Your task to perform on an android device: open app "McDonald's" (install if not already installed) and enter user name: "copes@yahoo.com" and password: "Rhenish" Image 0: 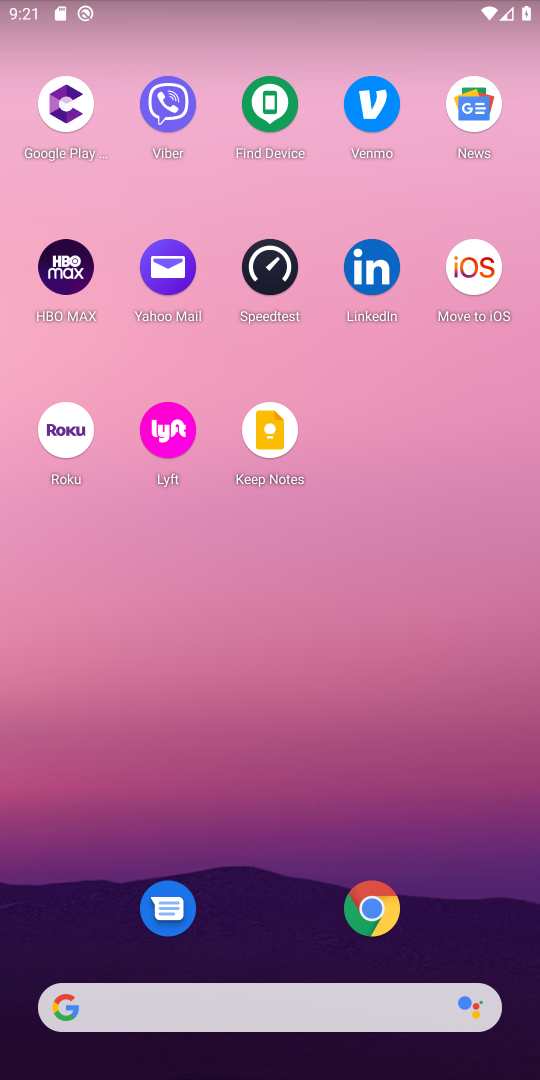
Step 0: drag from (275, 913) to (333, 5)
Your task to perform on an android device: open app "McDonald's" (install if not already installed) and enter user name: "copes@yahoo.com" and password: "Rhenish" Image 1: 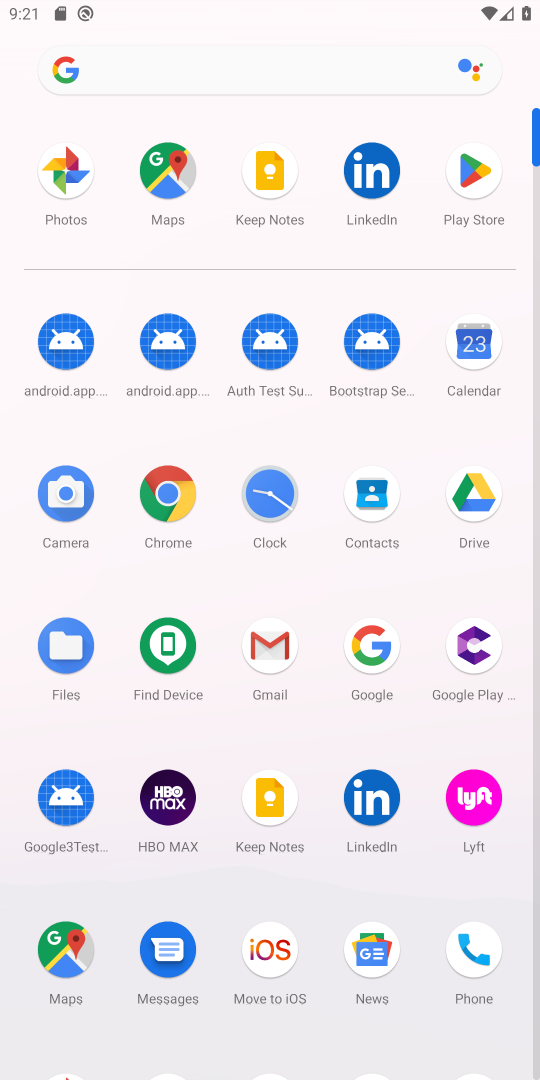
Step 1: click (474, 220)
Your task to perform on an android device: open app "McDonald's" (install if not already installed) and enter user name: "copes@yahoo.com" and password: "Rhenish" Image 2: 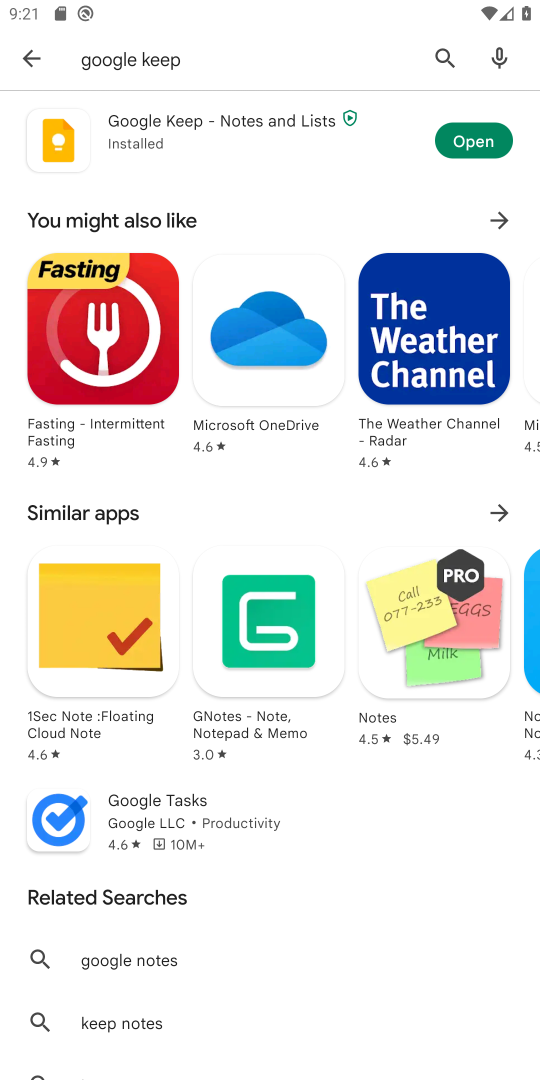
Step 2: click (213, 48)
Your task to perform on an android device: open app "McDonald's" (install if not already installed) and enter user name: "copes@yahoo.com" and password: "Rhenish" Image 3: 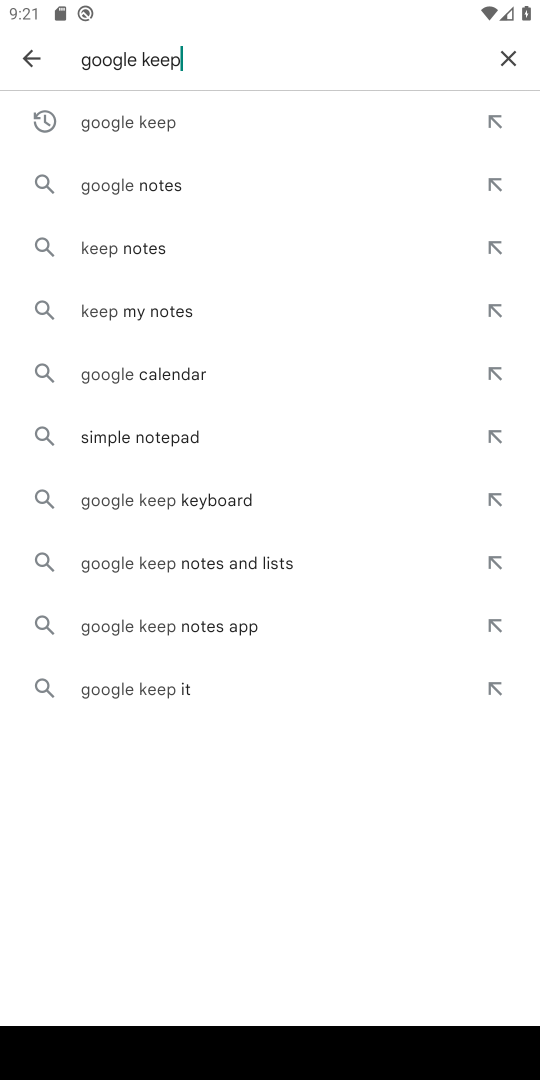
Step 3: click (511, 57)
Your task to perform on an android device: open app "McDonald's" (install if not already installed) and enter user name: "copes@yahoo.com" and password: "Rhenish" Image 4: 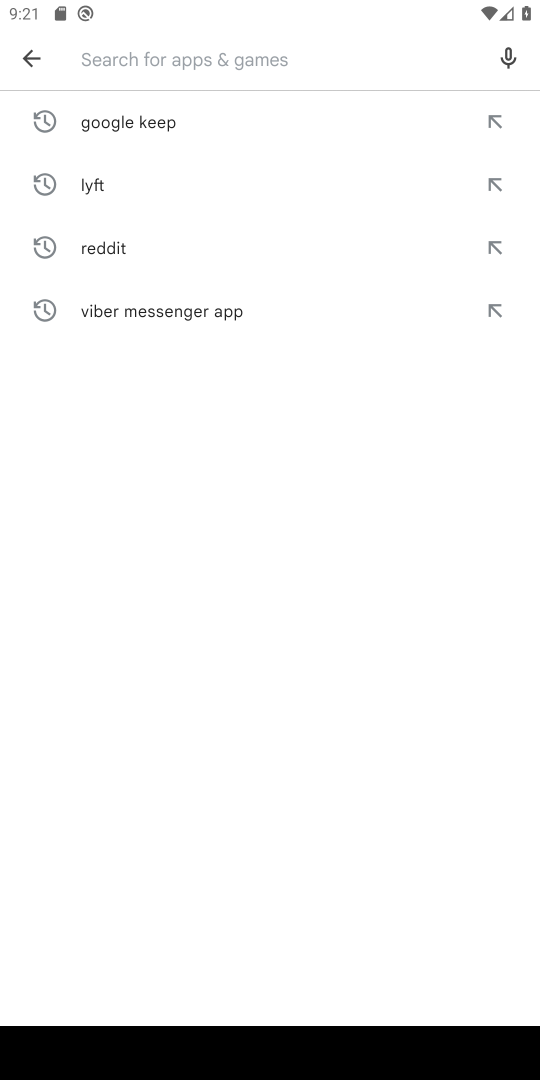
Step 4: type "McDonalds"
Your task to perform on an android device: open app "McDonald's" (install if not already installed) and enter user name: "copes@yahoo.com" and password: "Rhenish" Image 5: 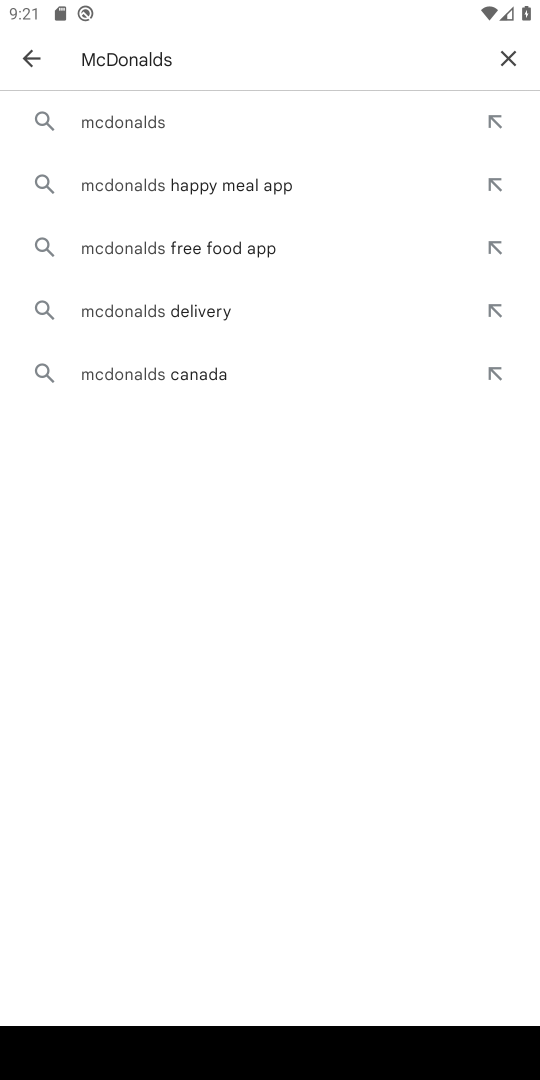
Step 5: click (185, 127)
Your task to perform on an android device: open app "McDonald's" (install if not already installed) and enter user name: "copes@yahoo.com" and password: "Rhenish" Image 6: 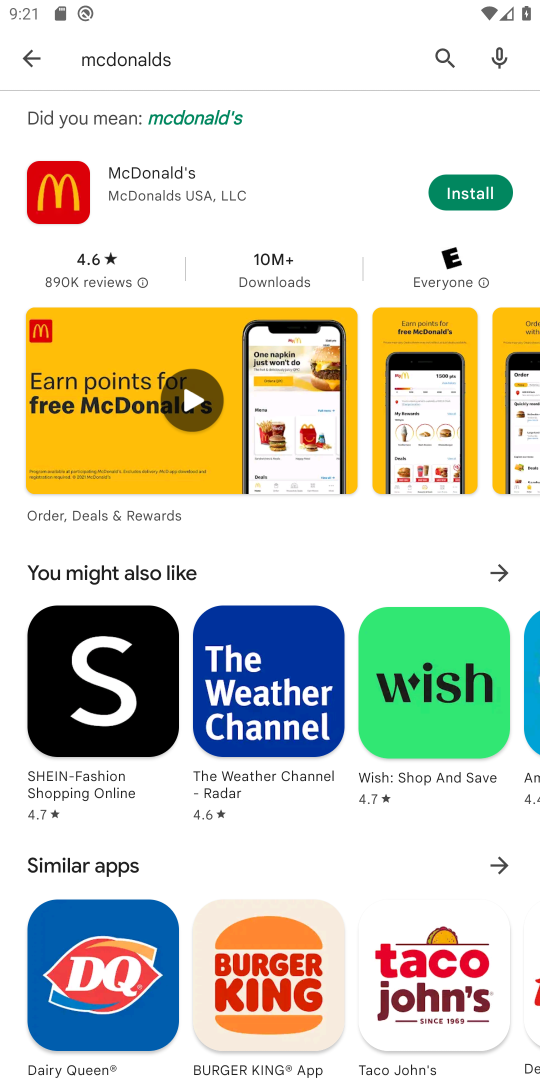
Step 6: click (489, 196)
Your task to perform on an android device: open app "McDonald's" (install if not already installed) and enter user name: "copes@yahoo.com" and password: "Rhenish" Image 7: 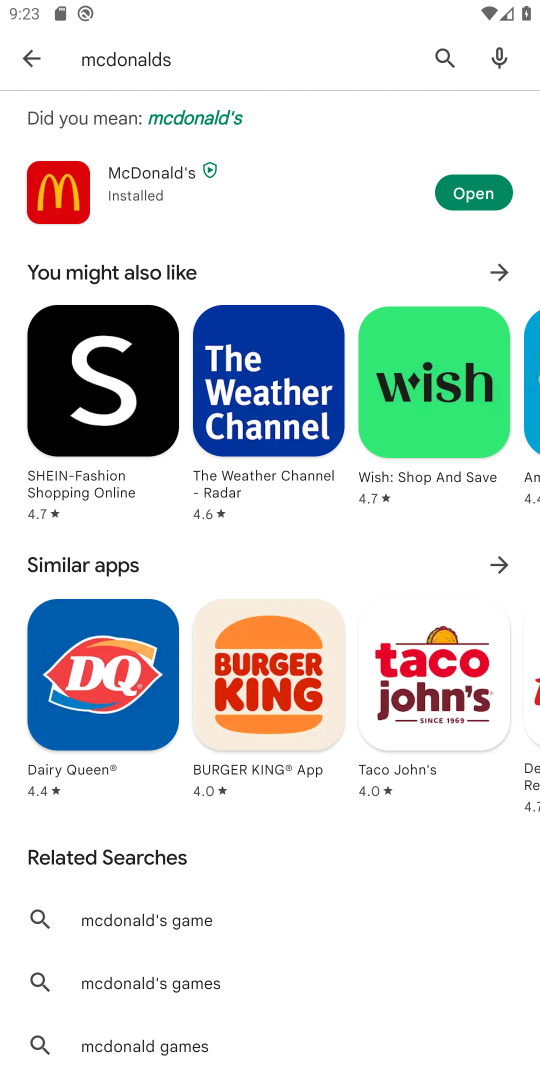
Step 7: click (472, 195)
Your task to perform on an android device: open app "McDonald's" (install if not already installed) and enter user name: "copes@yahoo.com" and password: "Rhenish" Image 8: 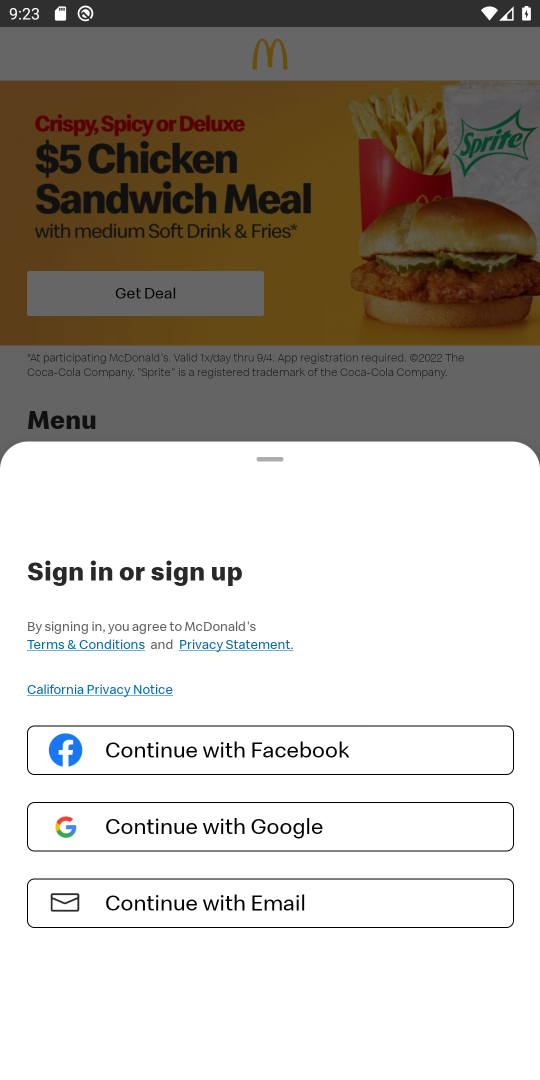
Step 8: click (274, 897)
Your task to perform on an android device: open app "McDonald's" (install if not already installed) and enter user name: "copes@yahoo.com" and password: "Rhenish" Image 9: 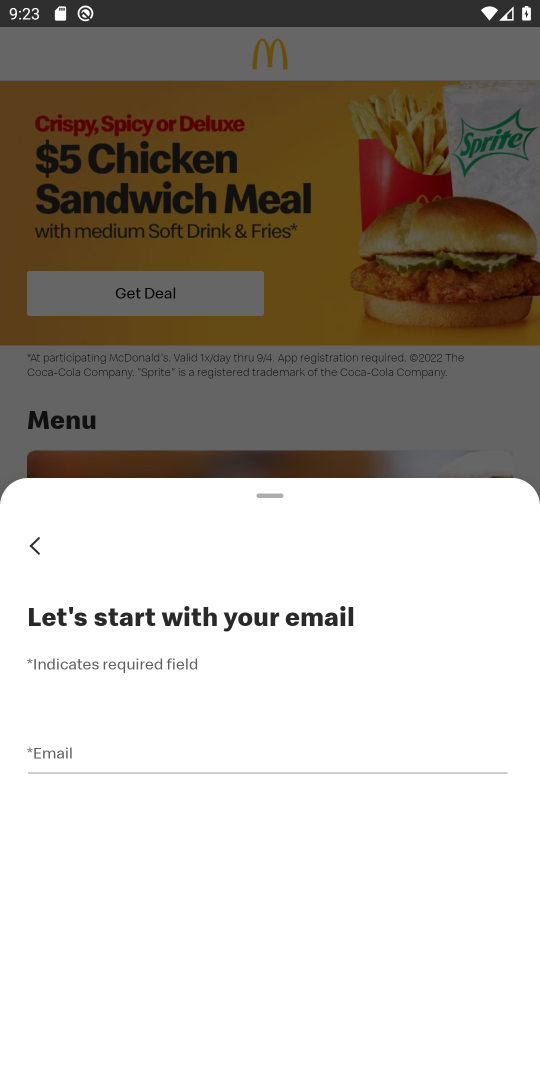
Step 9: click (169, 741)
Your task to perform on an android device: open app "McDonald's" (install if not already installed) and enter user name: "copes@yahoo.com" and password: "Rhenish" Image 10: 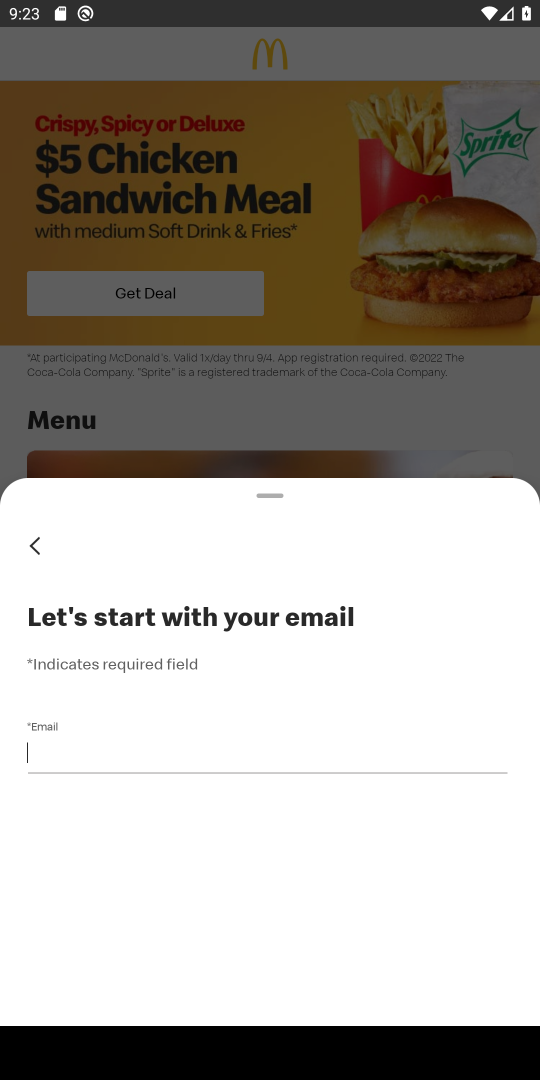
Step 10: type "copes@yahoo.com"
Your task to perform on an android device: open app "McDonald's" (install if not already installed) and enter user name: "copes@yahoo.com" and password: "Rhenish" Image 11: 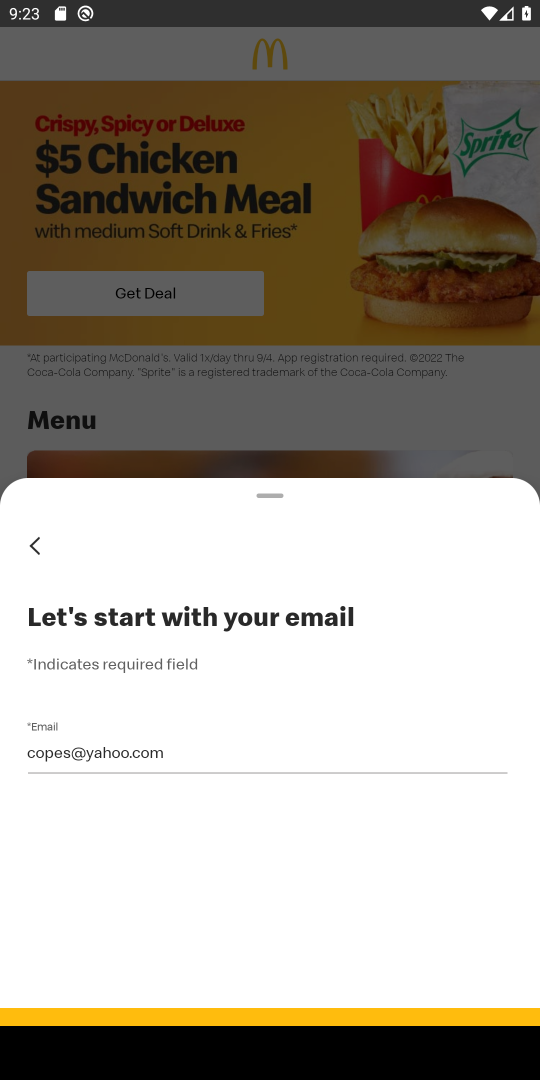
Step 11: drag from (193, 853) to (231, 614)
Your task to perform on an android device: open app "McDonald's" (install if not already installed) and enter user name: "copes@yahoo.com" and password: "Rhenish" Image 12: 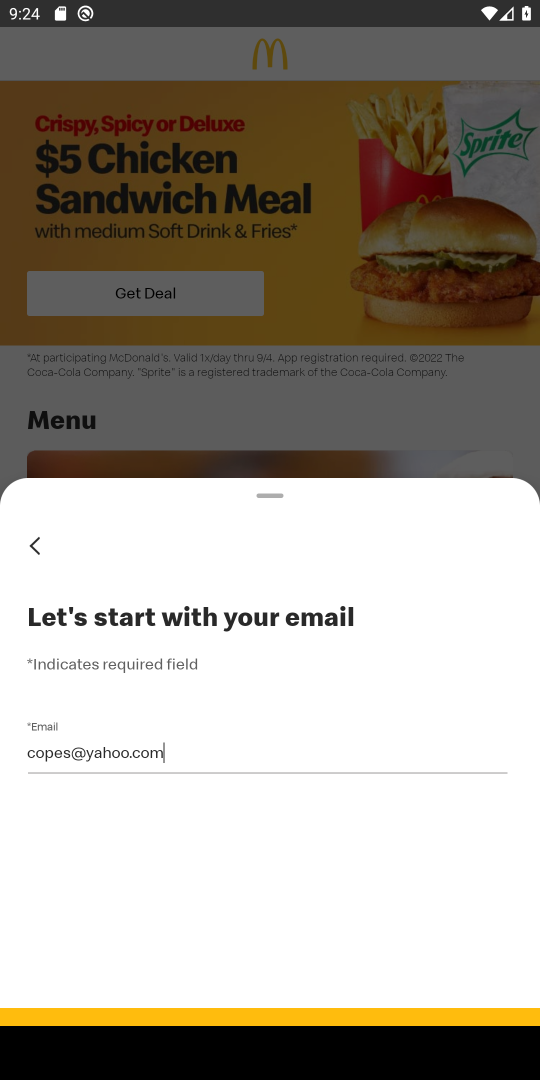
Step 12: click (205, 1021)
Your task to perform on an android device: open app "McDonald's" (install if not already installed) and enter user name: "copes@yahoo.com" and password: "Rhenish" Image 13: 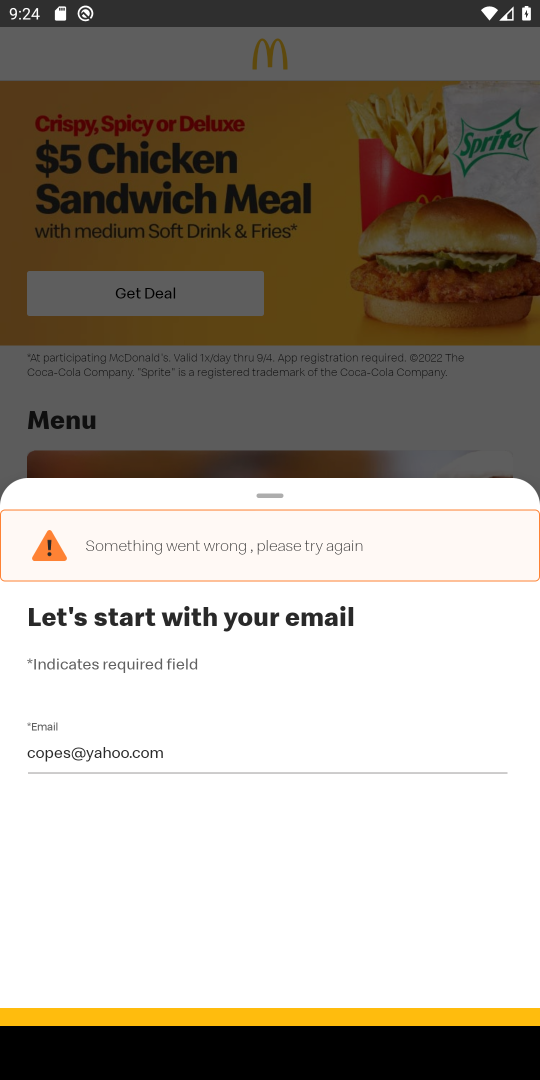
Step 13: click (199, 1018)
Your task to perform on an android device: open app "McDonald's" (install if not already installed) and enter user name: "copes@yahoo.com" and password: "Rhenish" Image 14: 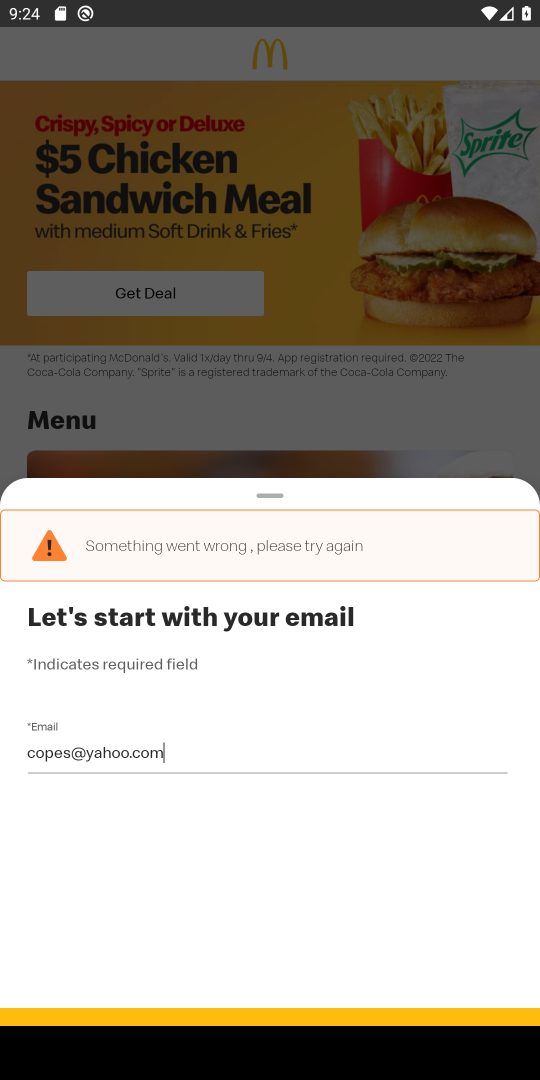
Step 14: task complete